Your task to perform on an android device: Is it going to rain this weekend? Image 0: 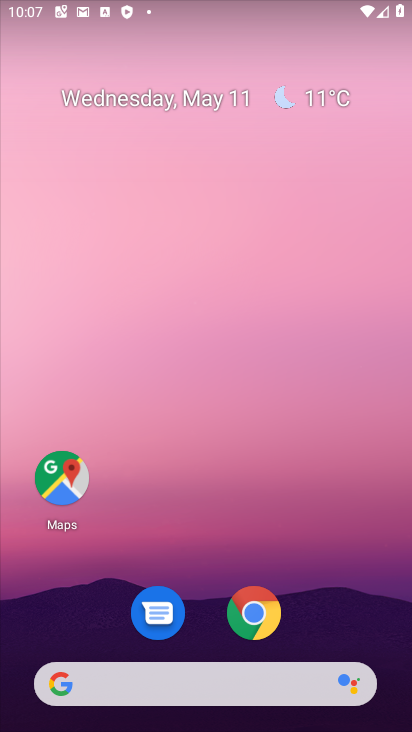
Step 0: drag from (183, 555) to (263, 246)
Your task to perform on an android device: Is it going to rain this weekend? Image 1: 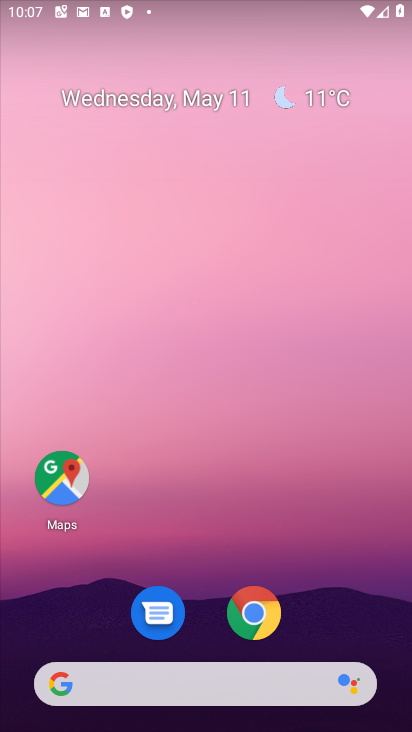
Step 1: drag from (200, 571) to (233, 133)
Your task to perform on an android device: Is it going to rain this weekend? Image 2: 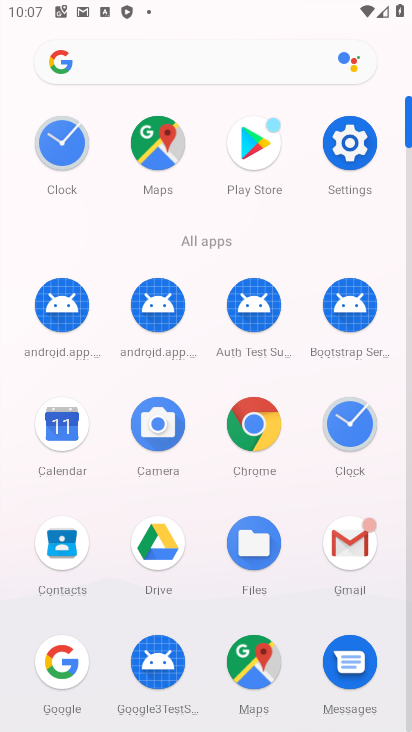
Step 2: click (63, 662)
Your task to perform on an android device: Is it going to rain this weekend? Image 3: 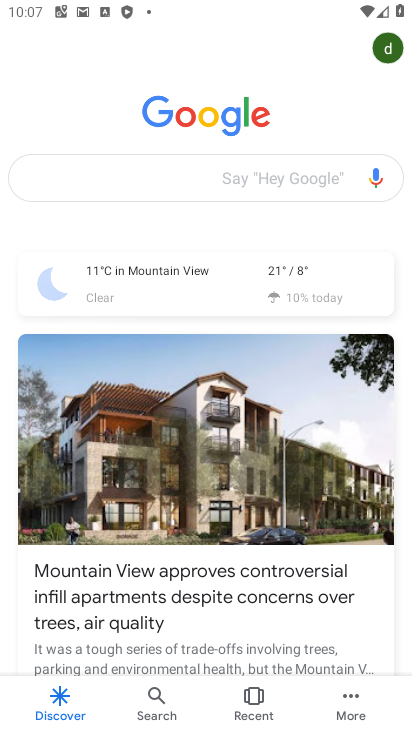
Step 3: click (258, 283)
Your task to perform on an android device: Is it going to rain this weekend? Image 4: 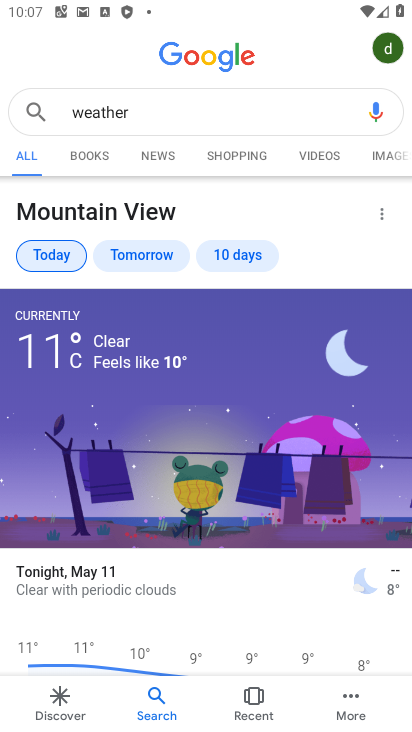
Step 4: task complete